Your task to perform on an android device: Search for seafood restaurants on Google Maps Image 0: 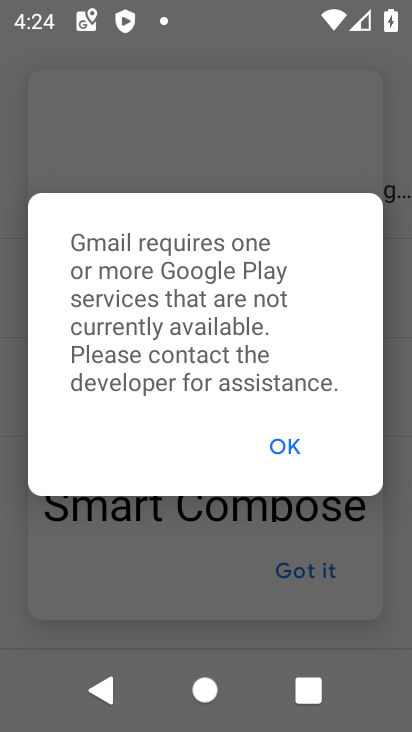
Step 0: press home button
Your task to perform on an android device: Search for seafood restaurants on Google Maps Image 1: 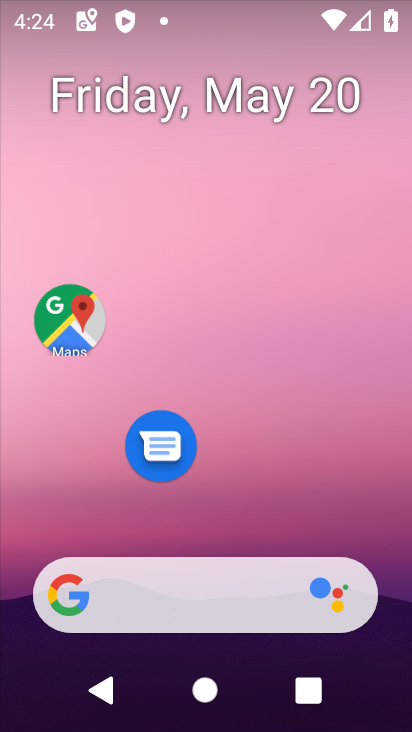
Step 1: click (82, 339)
Your task to perform on an android device: Search for seafood restaurants on Google Maps Image 2: 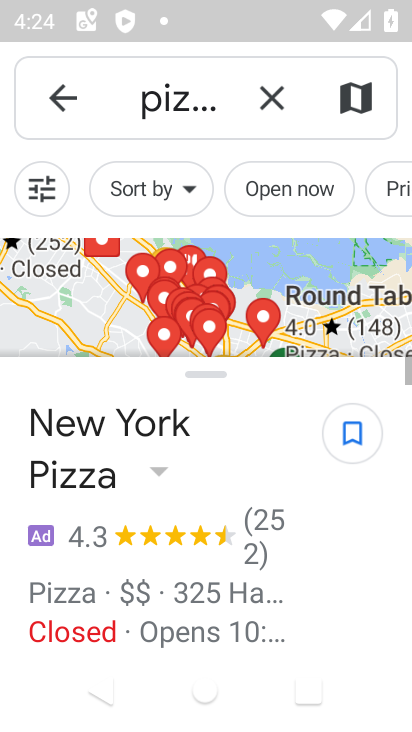
Step 2: click (270, 104)
Your task to perform on an android device: Search for seafood restaurants on Google Maps Image 3: 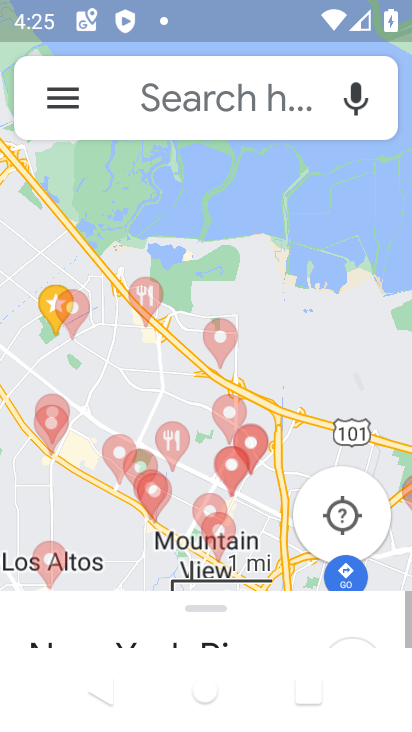
Step 3: click (196, 93)
Your task to perform on an android device: Search for seafood restaurants on Google Maps Image 4: 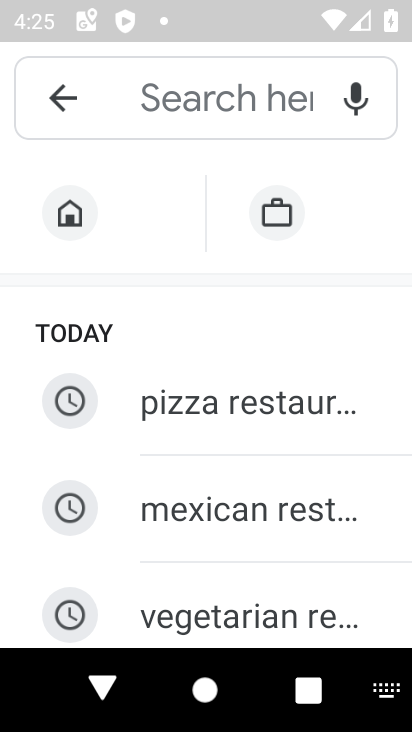
Step 4: type "seafood restaurants"
Your task to perform on an android device: Search for seafood restaurants on Google Maps Image 5: 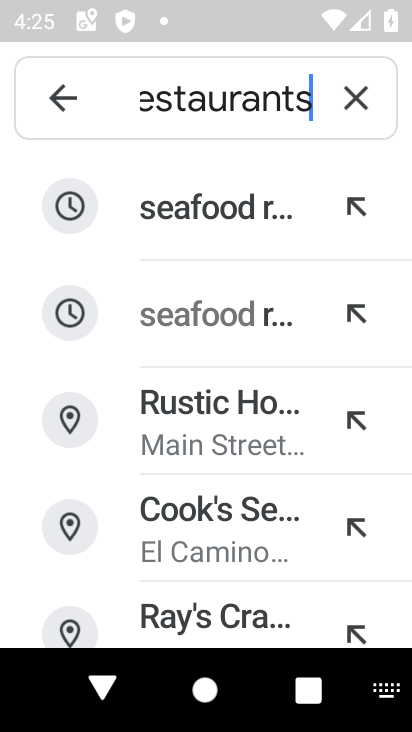
Step 5: click (196, 201)
Your task to perform on an android device: Search for seafood restaurants on Google Maps Image 6: 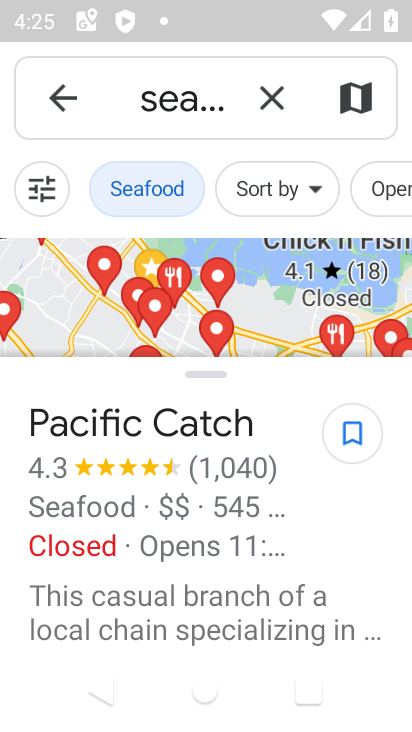
Step 6: task complete